Your task to perform on an android device: Go to privacy settings Image 0: 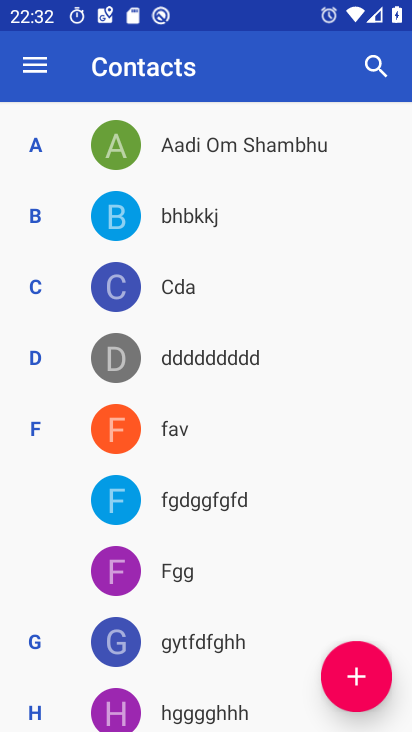
Step 0: press home button
Your task to perform on an android device: Go to privacy settings Image 1: 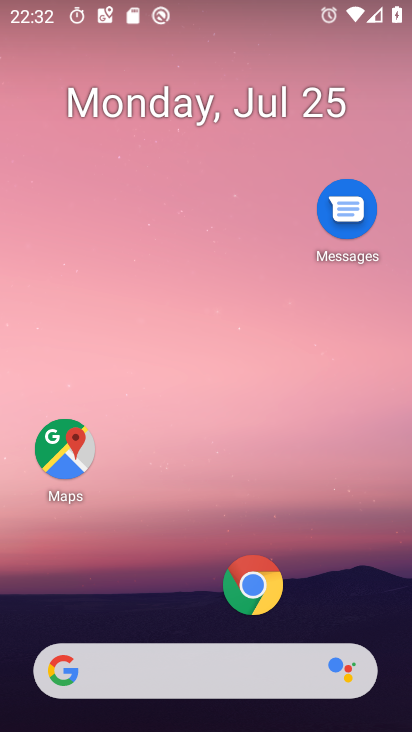
Step 1: drag from (203, 616) to (259, 141)
Your task to perform on an android device: Go to privacy settings Image 2: 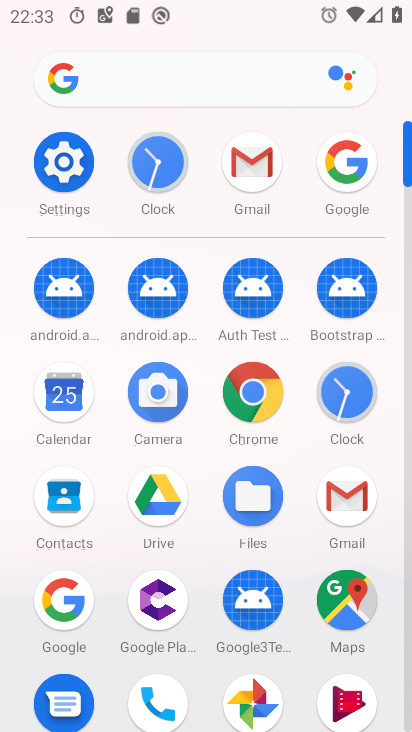
Step 2: click (64, 171)
Your task to perform on an android device: Go to privacy settings Image 3: 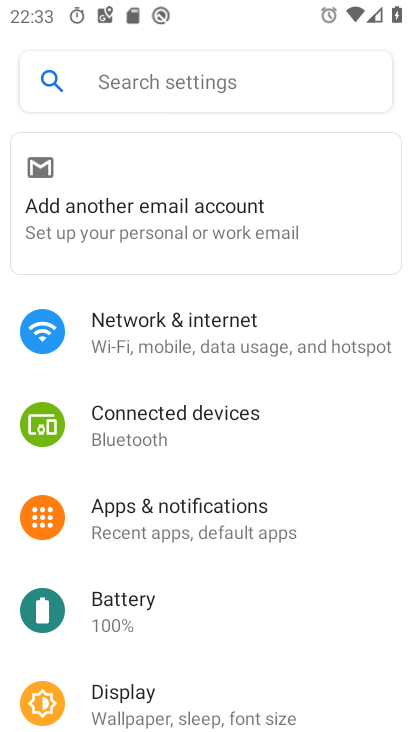
Step 3: drag from (188, 647) to (326, 73)
Your task to perform on an android device: Go to privacy settings Image 4: 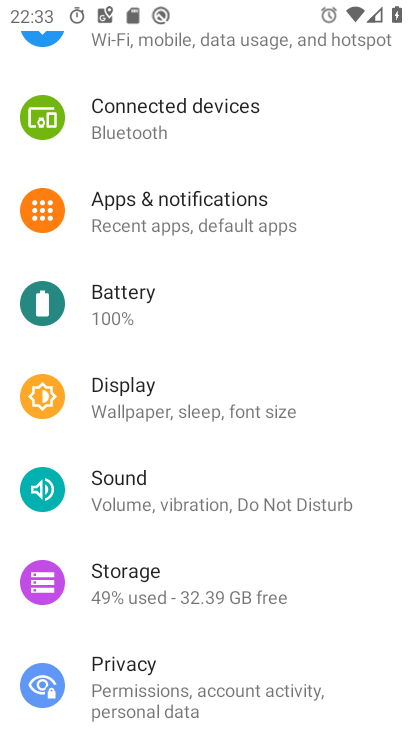
Step 4: click (152, 672)
Your task to perform on an android device: Go to privacy settings Image 5: 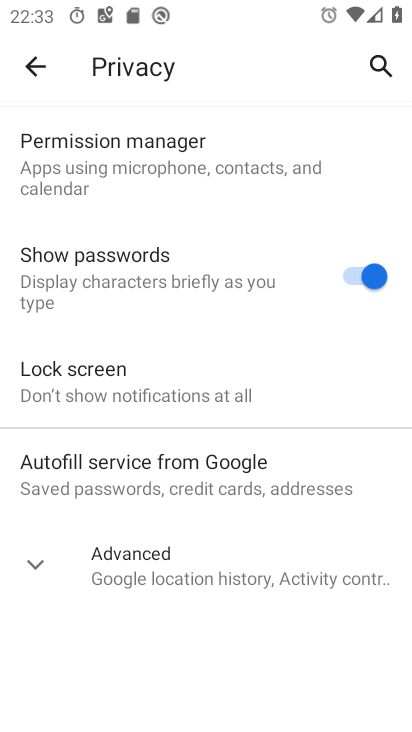
Step 5: task complete